Your task to perform on an android device: Open display settings Image 0: 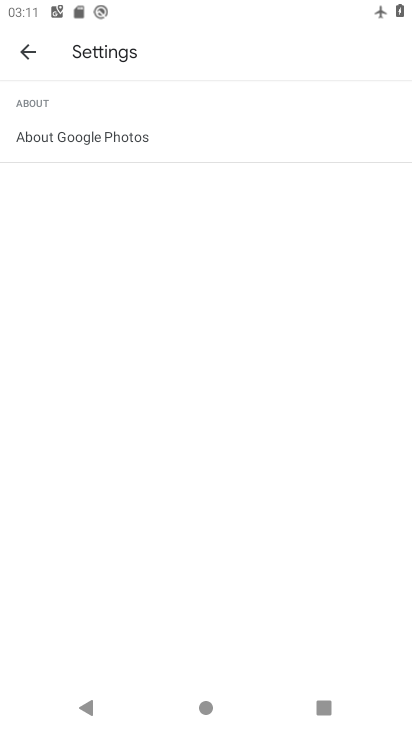
Step 0: press home button
Your task to perform on an android device: Open display settings Image 1: 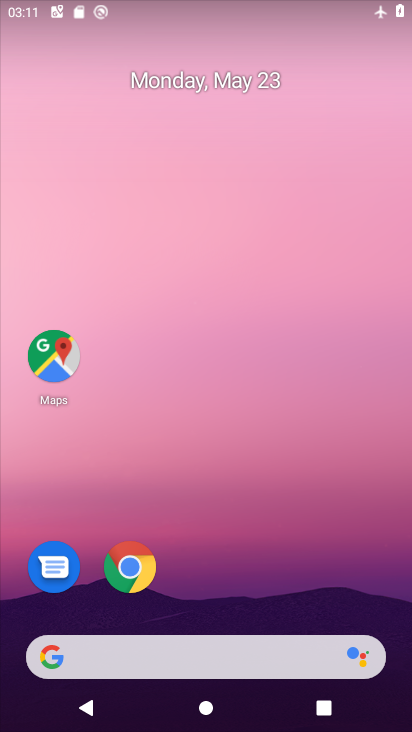
Step 1: drag from (214, 595) to (269, 191)
Your task to perform on an android device: Open display settings Image 2: 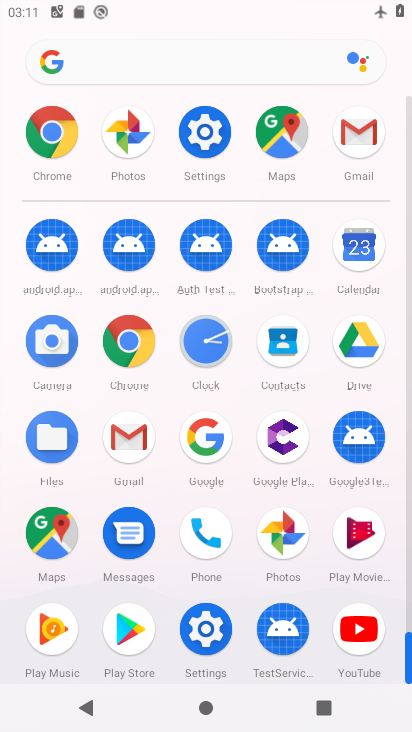
Step 2: click (223, 149)
Your task to perform on an android device: Open display settings Image 3: 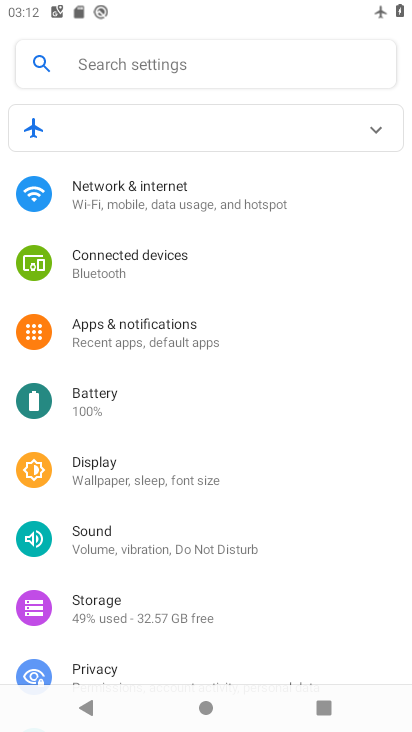
Step 3: click (124, 487)
Your task to perform on an android device: Open display settings Image 4: 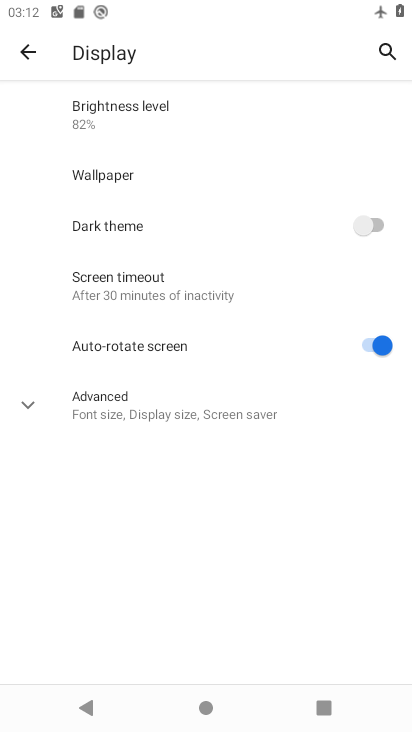
Step 4: click (100, 471)
Your task to perform on an android device: Open display settings Image 5: 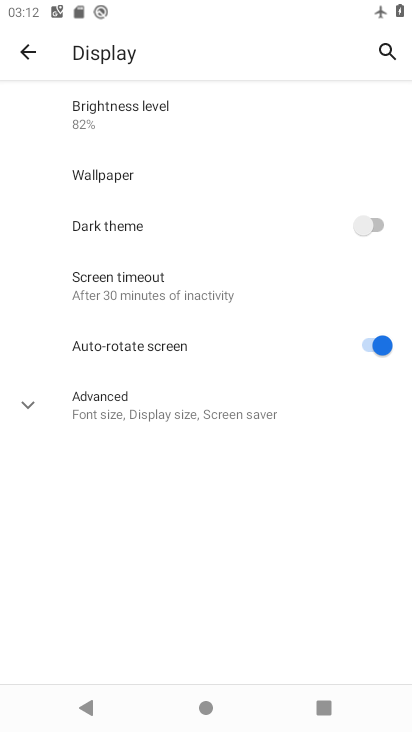
Step 5: click (212, 551)
Your task to perform on an android device: Open display settings Image 6: 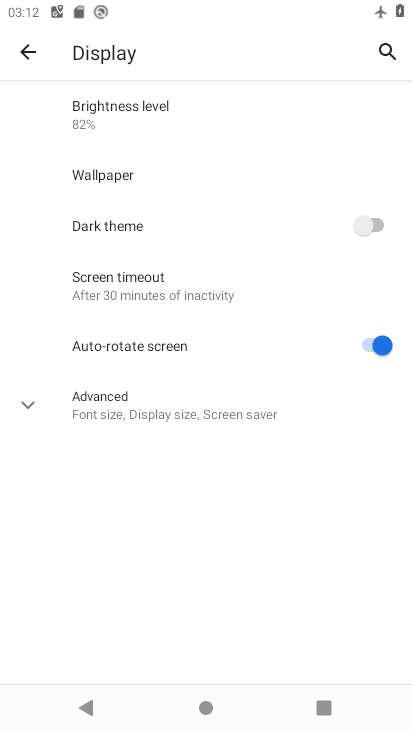
Step 6: click (213, 542)
Your task to perform on an android device: Open display settings Image 7: 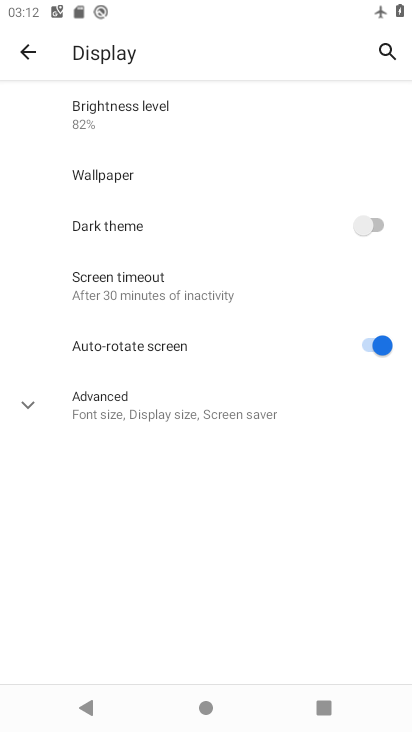
Step 7: click (213, 542)
Your task to perform on an android device: Open display settings Image 8: 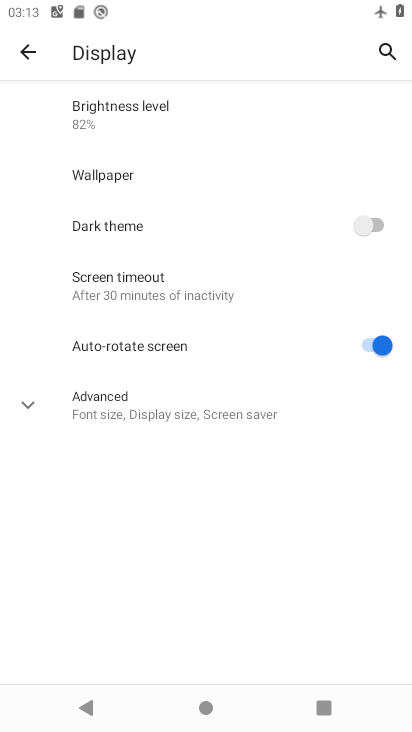
Step 8: task complete